Your task to perform on an android device: Show the shopping cart on newegg. Image 0: 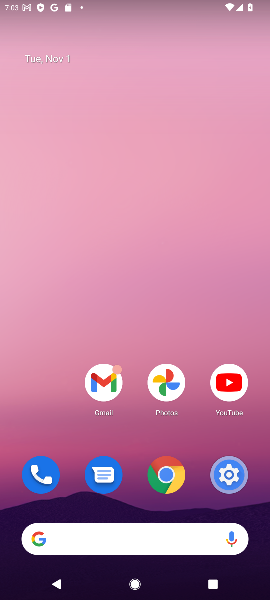
Step 0: click (80, 542)
Your task to perform on an android device: Show the shopping cart on newegg. Image 1: 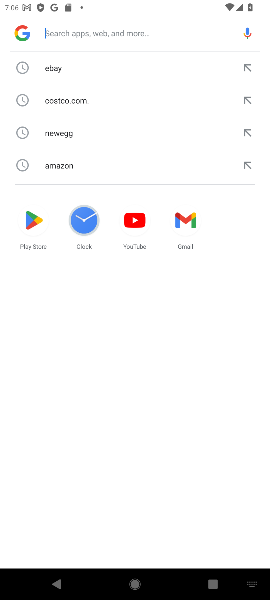
Step 1: type "newegg"
Your task to perform on an android device: Show the shopping cart on newegg. Image 2: 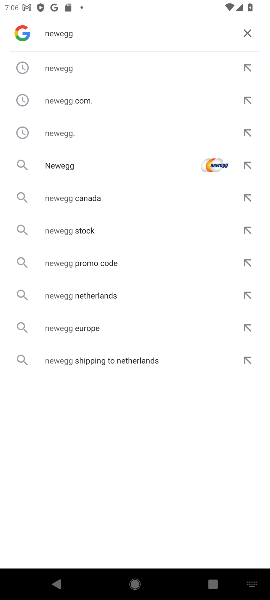
Step 2: click (52, 68)
Your task to perform on an android device: Show the shopping cart on newegg. Image 3: 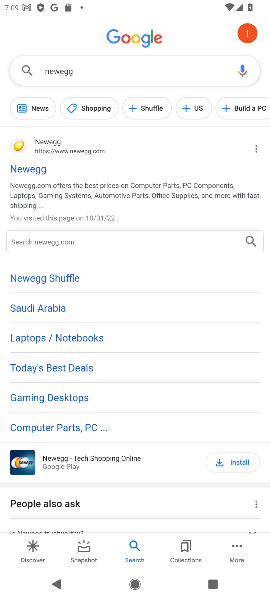
Step 3: click (33, 163)
Your task to perform on an android device: Show the shopping cart on newegg. Image 4: 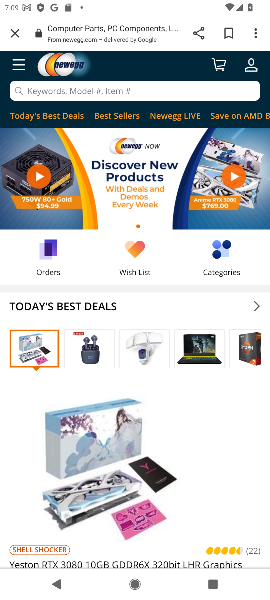
Step 4: click (221, 69)
Your task to perform on an android device: Show the shopping cart on newegg. Image 5: 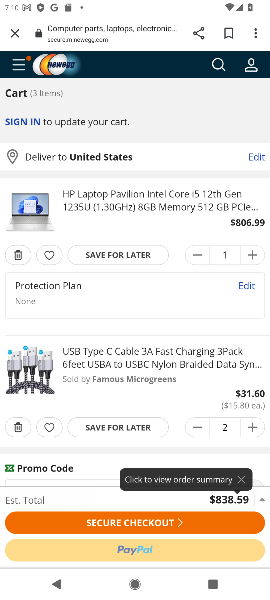
Step 5: task complete